Your task to perform on an android device: turn pop-ups on in chrome Image 0: 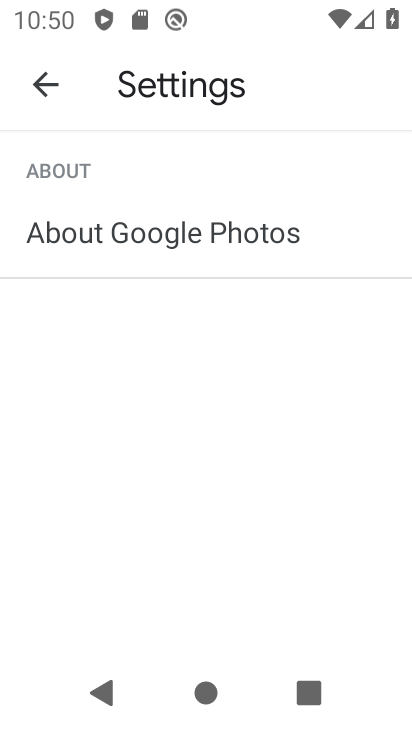
Step 0: drag from (234, 527) to (233, 309)
Your task to perform on an android device: turn pop-ups on in chrome Image 1: 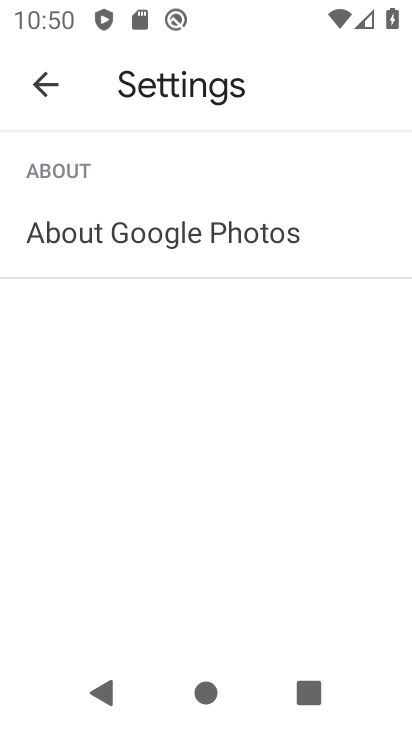
Step 1: press home button
Your task to perform on an android device: turn pop-ups on in chrome Image 2: 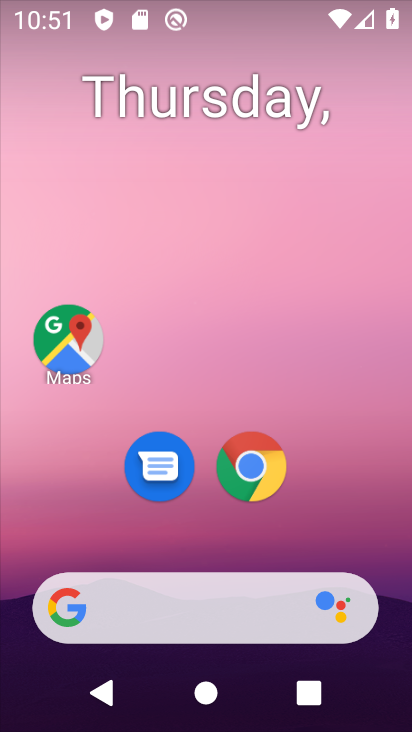
Step 2: click (270, 471)
Your task to perform on an android device: turn pop-ups on in chrome Image 3: 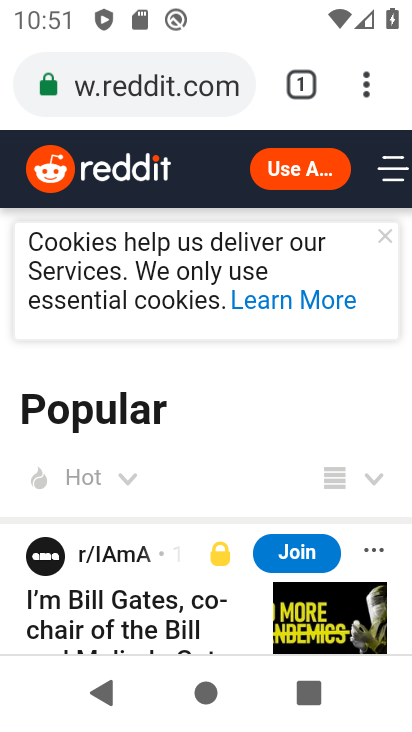
Step 3: click (369, 92)
Your task to perform on an android device: turn pop-ups on in chrome Image 4: 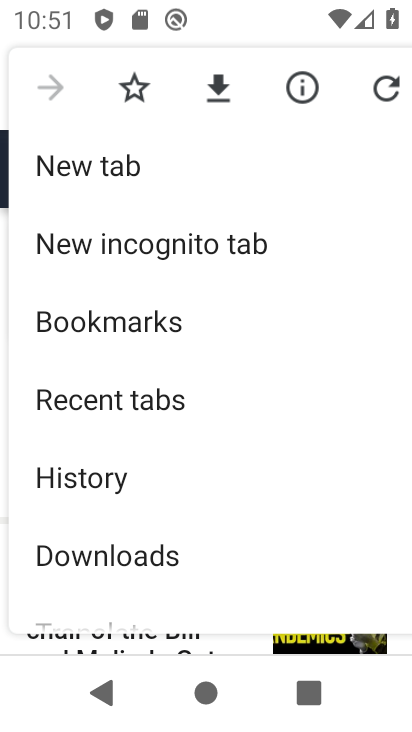
Step 4: drag from (180, 526) to (163, 81)
Your task to perform on an android device: turn pop-ups on in chrome Image 5: 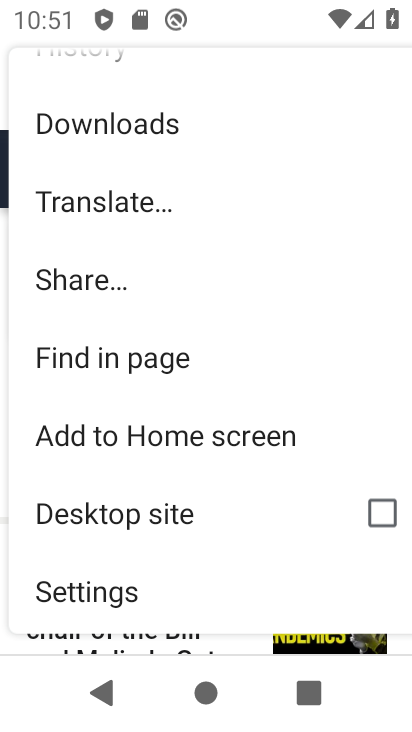
Step 5: click (106, 567)
Your task to perform on an android device: turn pop-ups on in chrome Image 6: 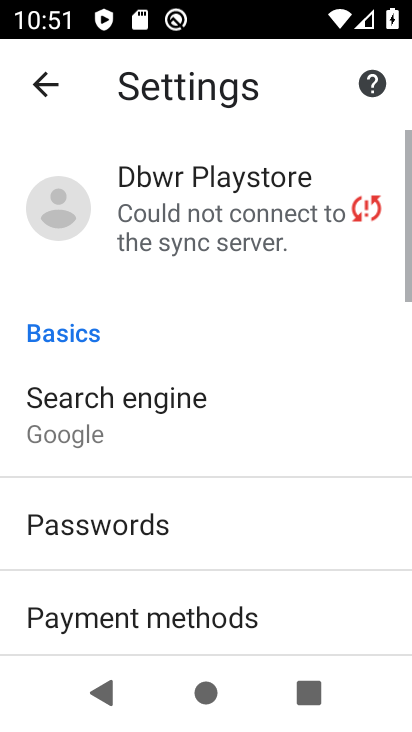
Step 6: drag from (106, 567) to (107, 127)
Your task to perform on an android device: turn pop-ups on in chrome Image 7: 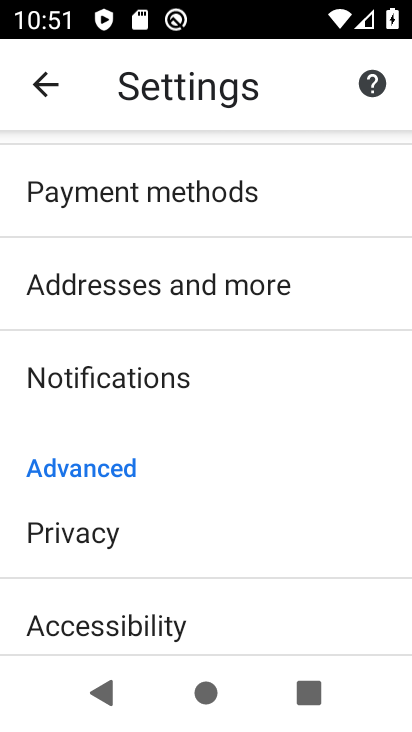
Step 7: drag from (172, 557) to (151, 70)
Your task to perform on an android device: turn pop-ups on in chrome Image 8: 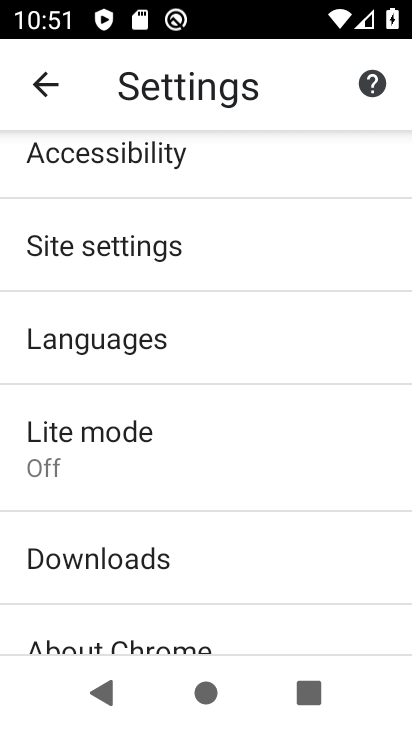
Step 8: click (107, 251)
Your task to perform on an android device: turn pop-ups on in chrome Image 9: 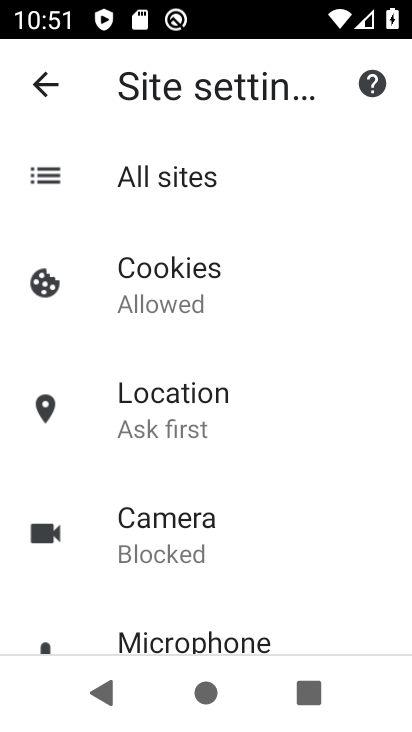
Step 9: drag from (165, 532) to (129, 181)
Your task to perform on an android device: turn pop-ups on in chrome Image 10: 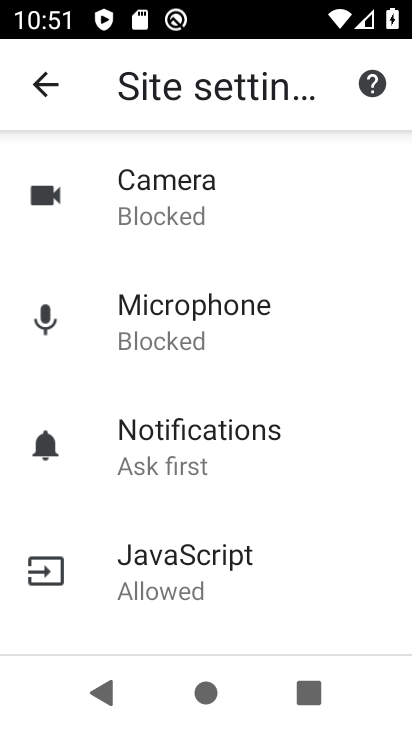
Step 10: drag from (142, 589) to (112, 157)
Your task to perform on an android device: turn pop-ups on in chrome Image 11: 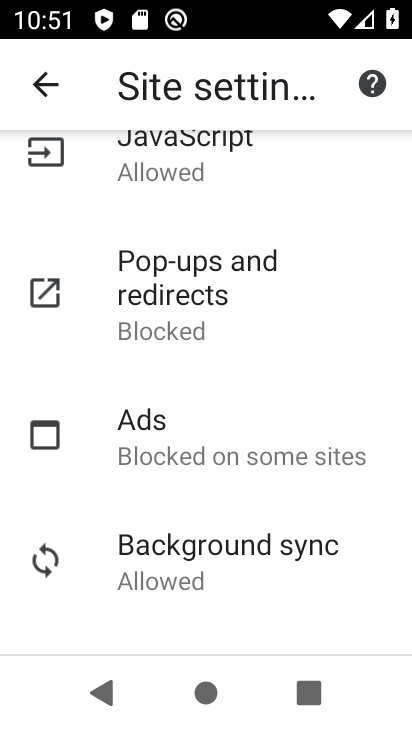
Step 11: click (164, 294)
Your task to perform on an android device: turn pop-ups on in chrome Image 12: 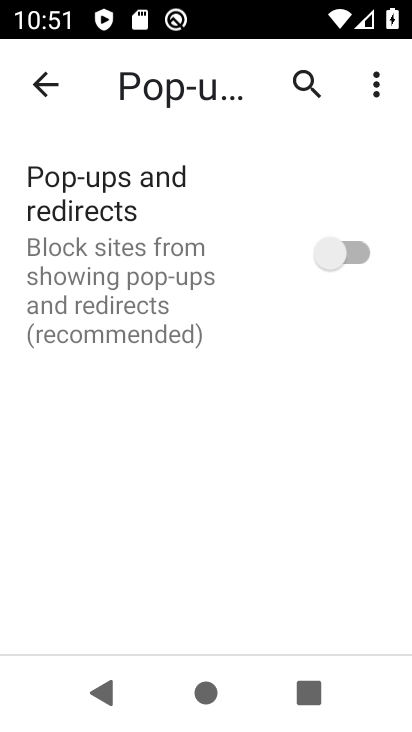
Step 12: click (370, 263)
Your task to perform on an android device: turn pop-ups on in chrome Image 13: 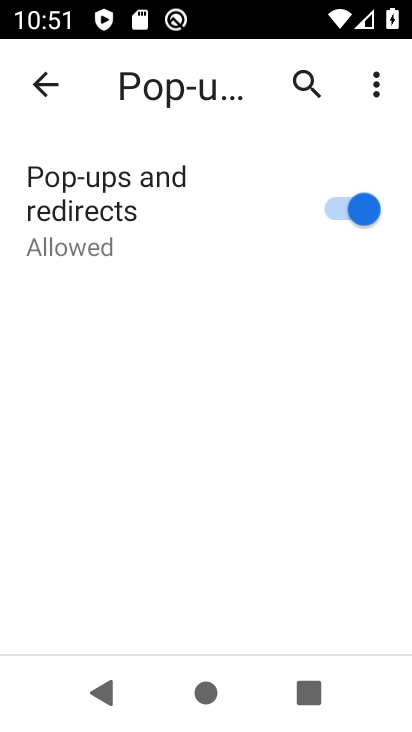
Step 13: task complete